Your task to perform on an android device: What time is it? Image 0: 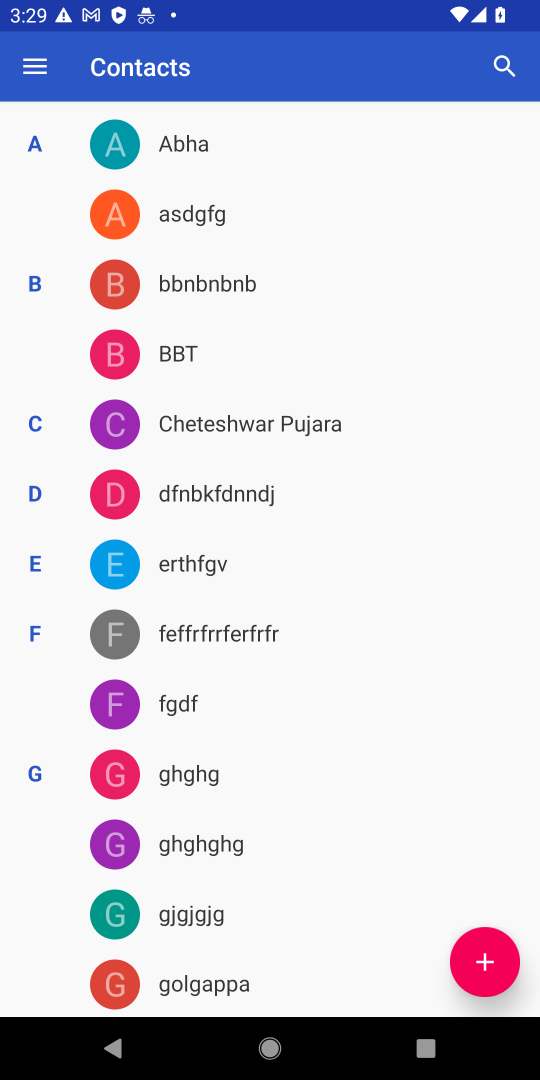
Step 0: press home button
Your task to perform on an android device: What time is it? Image 1: 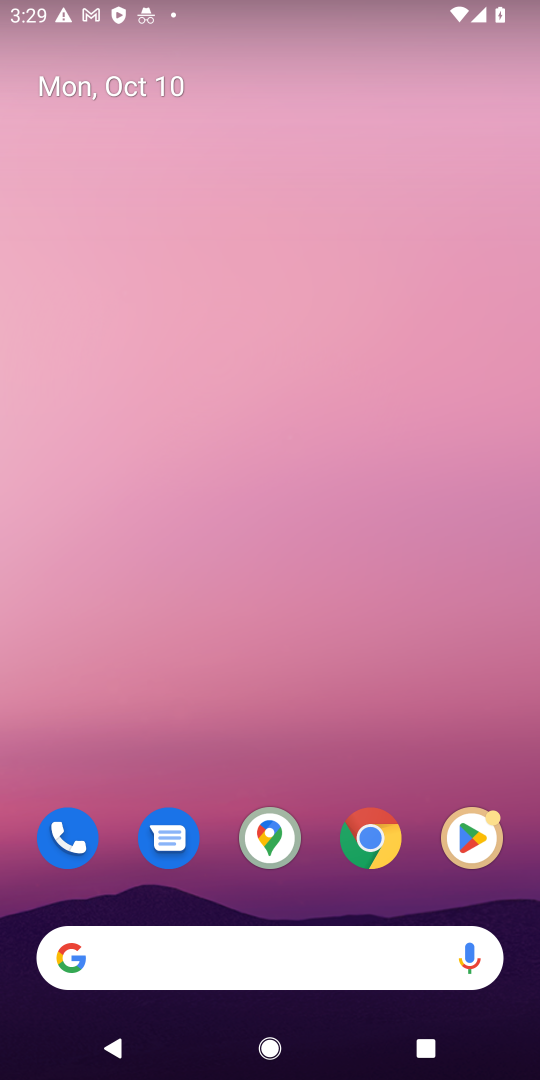
Step 1: click (381, 824)
Your task to perform on an android device: What time is it? Image 2: 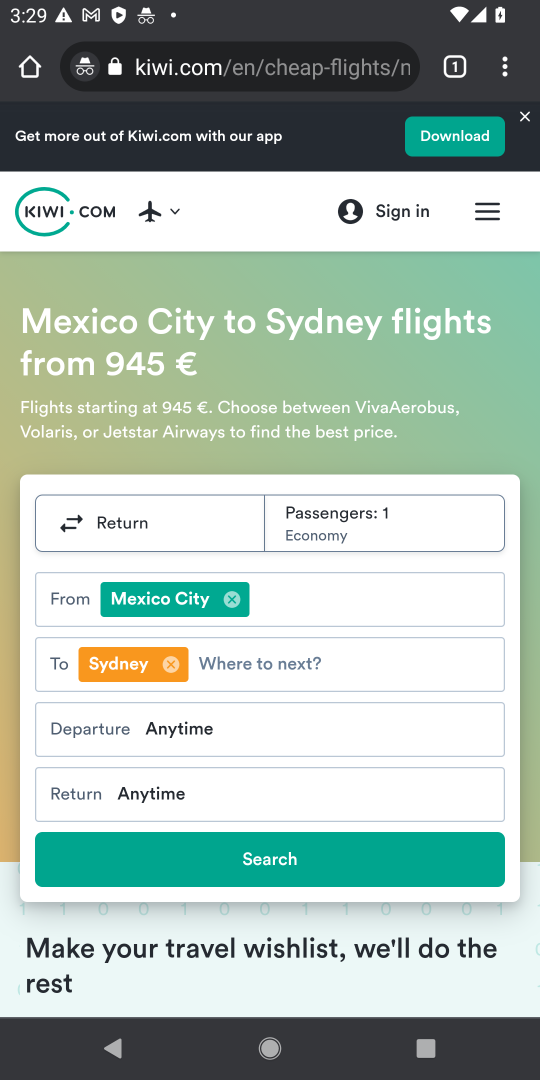
Step 2: click (261, 70)
Your task to perform on an android device: What time is it? Image 3: 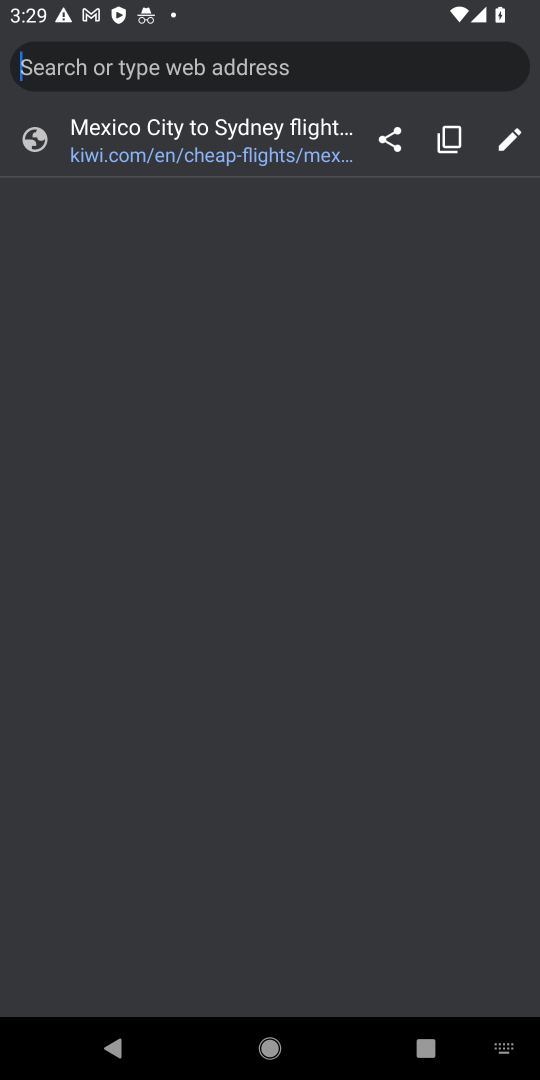
Step 3: type "What time is it ?"
Your task to perform on an android device: What time is it? Image 4: 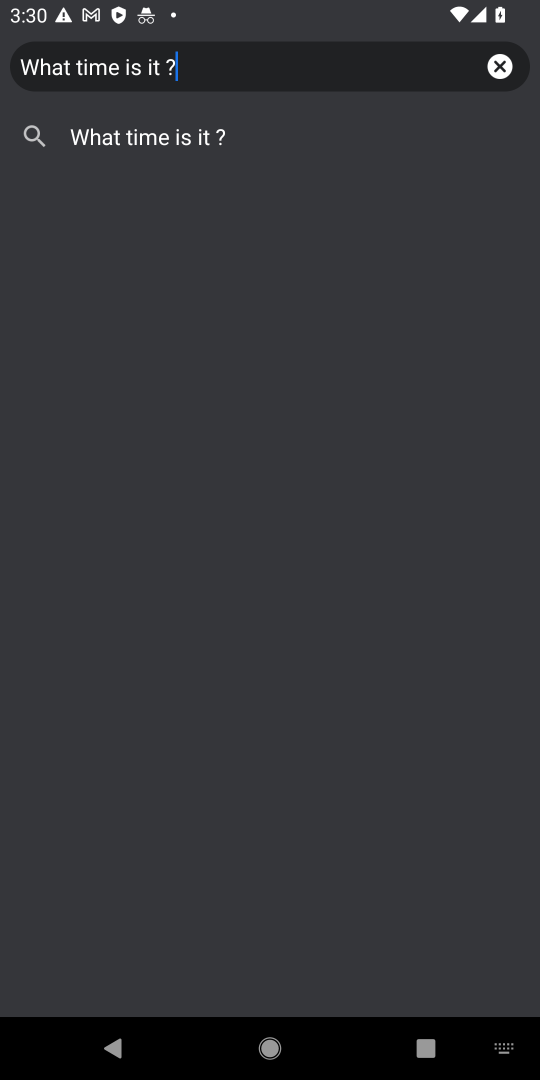
Step 4: click (151, 155)
Your task to perform on an android device: What time is it? Image 5: 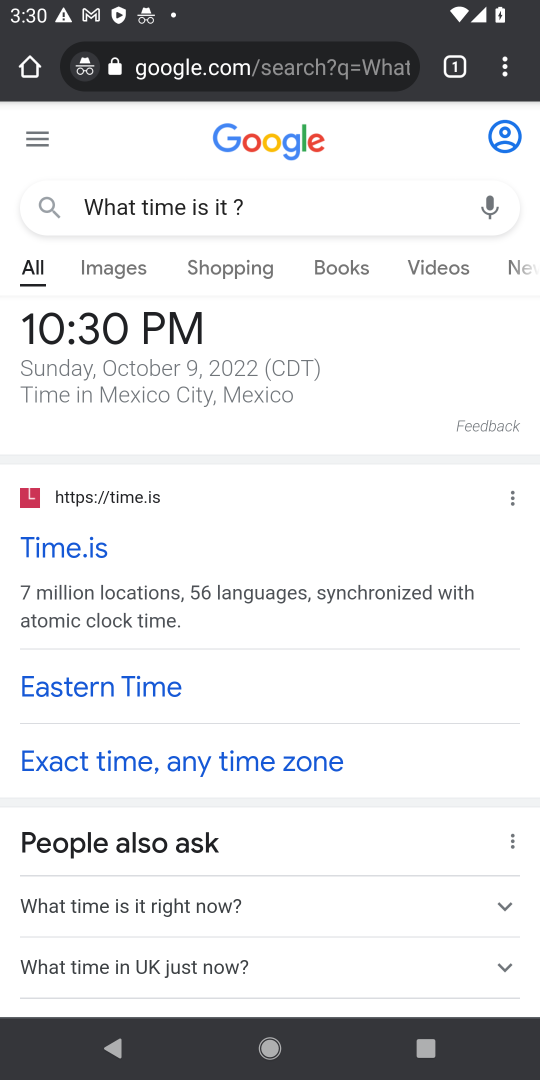
Step 5: task complete